Your task to perform on an android device: Search for hotels in Buenos aires Image 0: 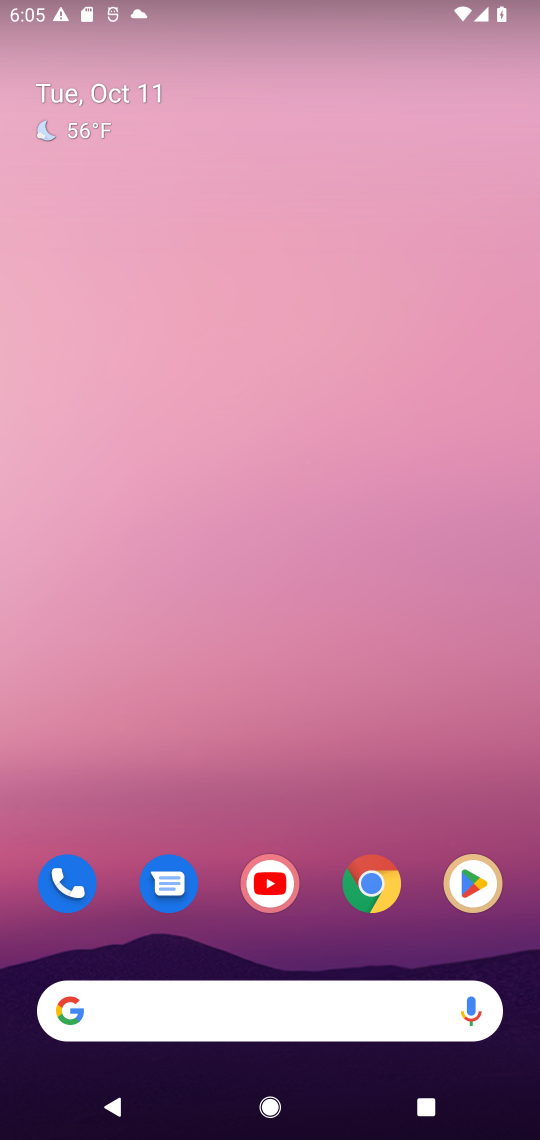
Step 0: drag from (307, 932) to (301, 26)
Your task to perform on an android device: Search for hotels in Buenos aires Image 1: 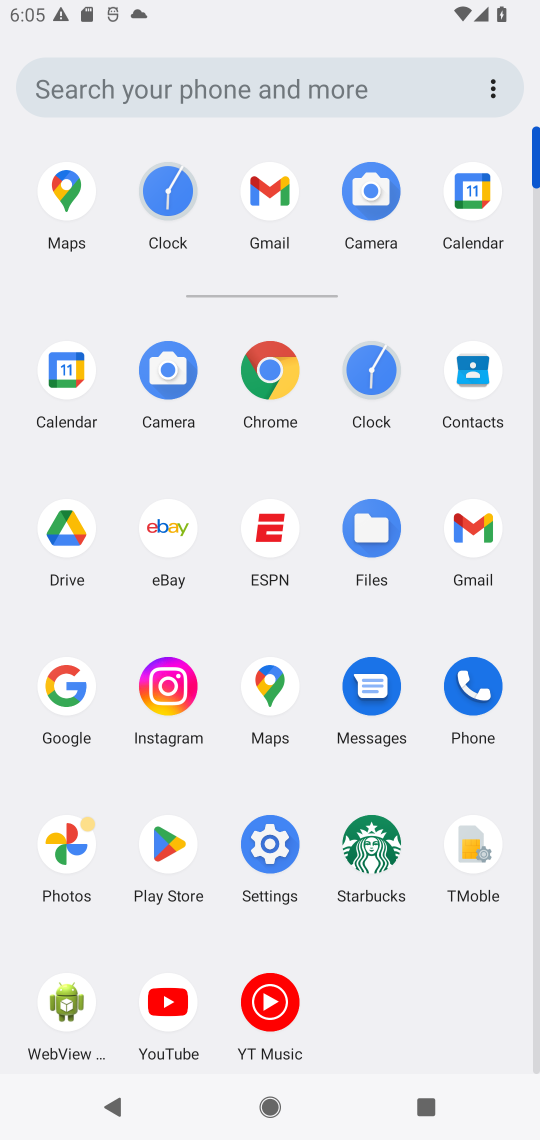
Step 1: click (273, 369)
Your task to perform on an android device: Search for hotels in Buenos aires Image 2: 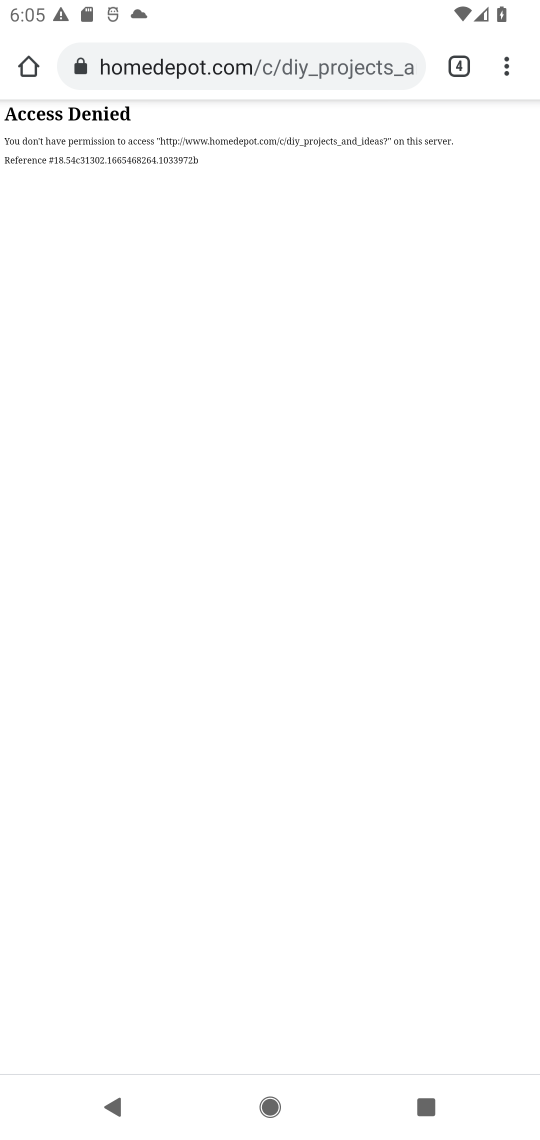
Step 2: click (264, 73)
Your task to perform on an android device: Search for hotels in Buenos aires Image 3: 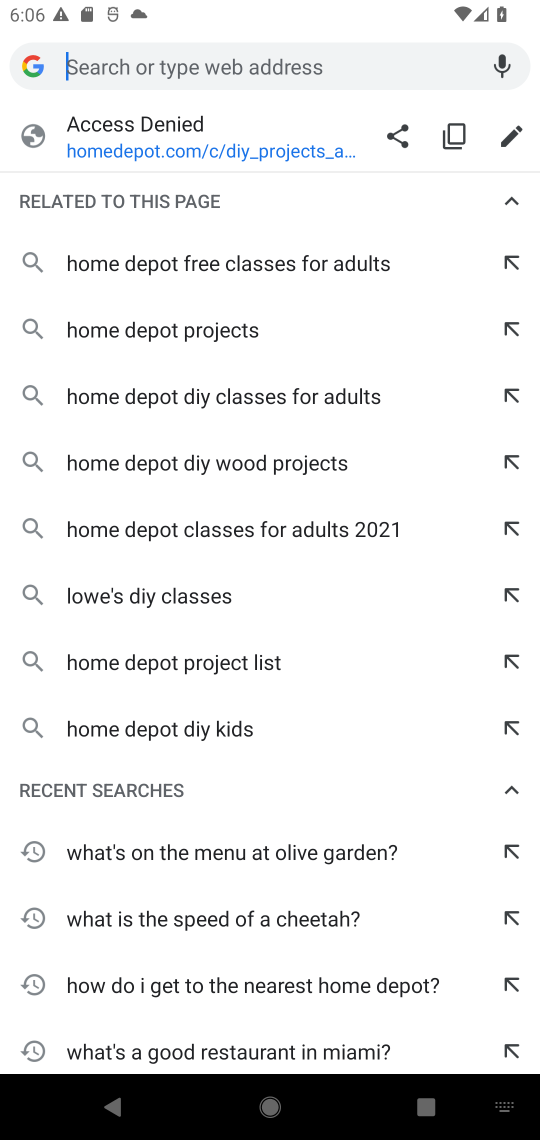
Step 3: type "hotels in Buenos aires"
Your task to perform on an android device: Search for hotels in Buenos aires Image 4: 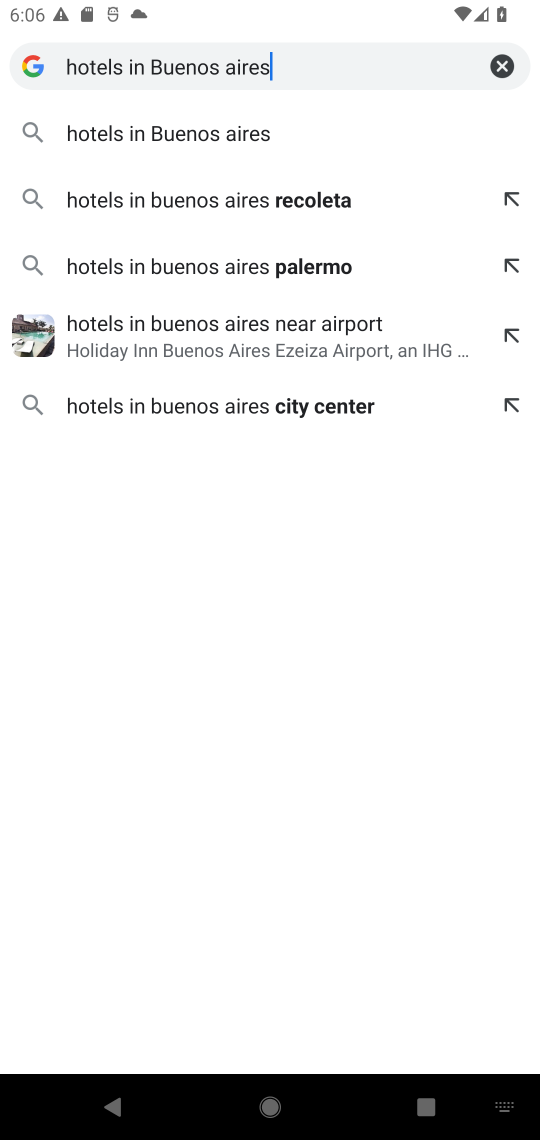
Step 4: press enter
Your task to perform on an android device: Search for hotels in Buenos aires Image 5: 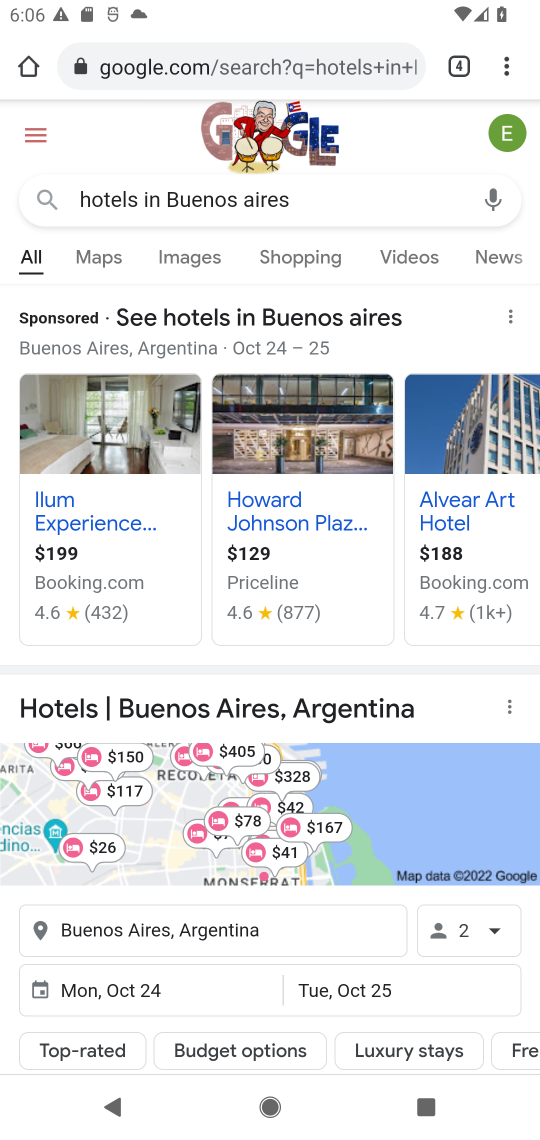
Step 5: task complete